Your task to perform on an android device: Open Amazon Image 0: 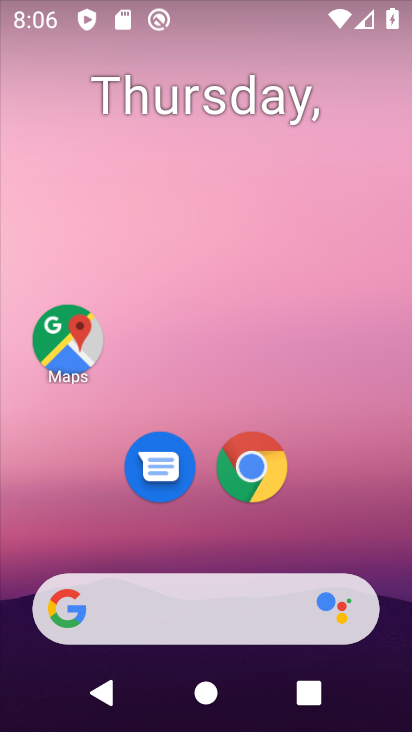
Step 0: click (263, 462)
Your task to perform on an android device: Open Amazon Image 1: 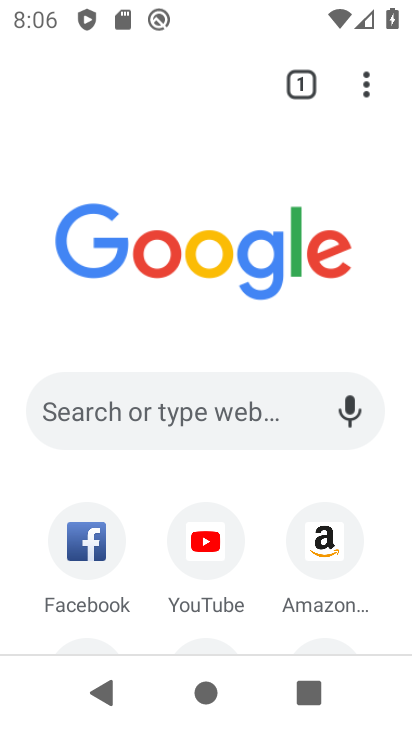
Step 1: click (341, 527)
Your task to perform on an android device: Open Amazon Image 2: 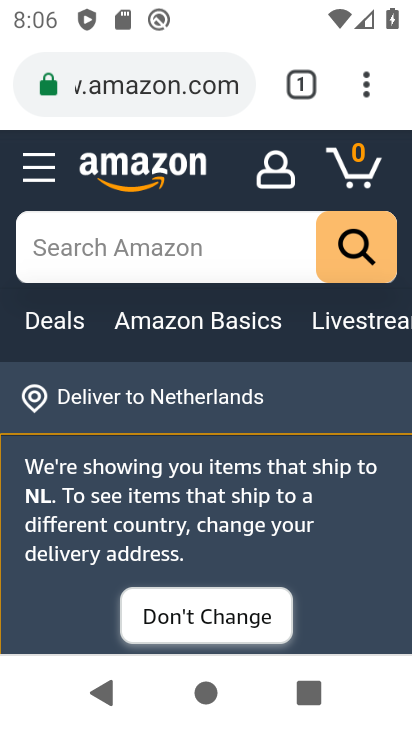
Step 2: task complete